Your task to perform on an android device: Open the calendar and show me this week's events? Image 0: 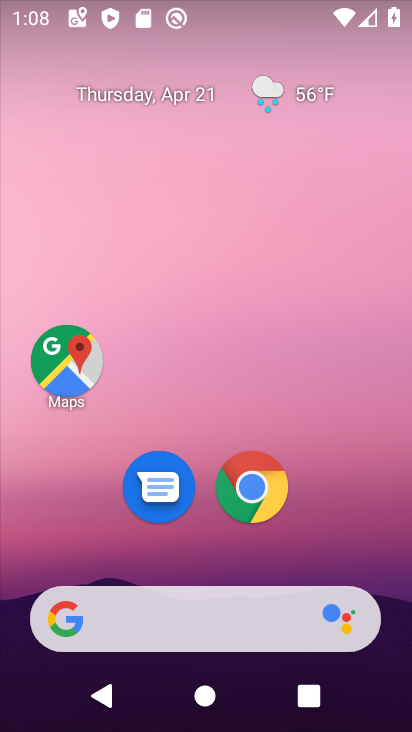
Step 0: drag from (366, 509) to (245, 10)
Your task to perform on an android device: Open the calendar and show me this week's events? Image 1: 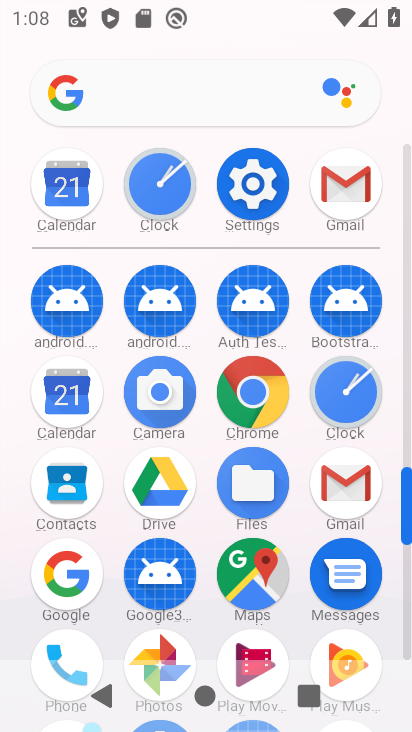
Step 1: click (66, 397)
Your task to perform on an android device: Open the calendar and show me this week's events? Image 2: 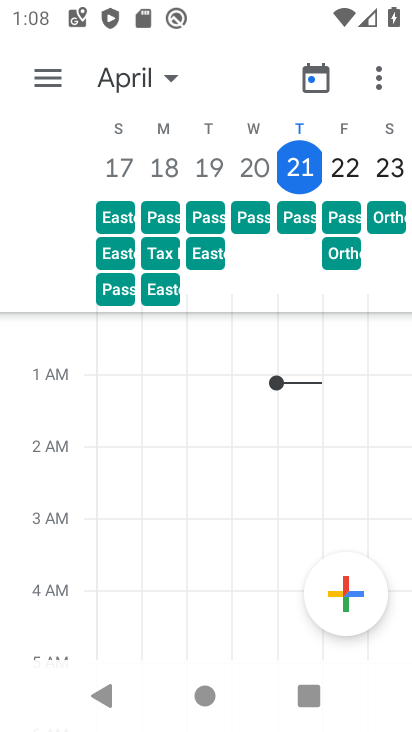
Step 2: click (170, 79)
Your task to perform on an android device: Open the calendar and show me this week's events? Image 3: 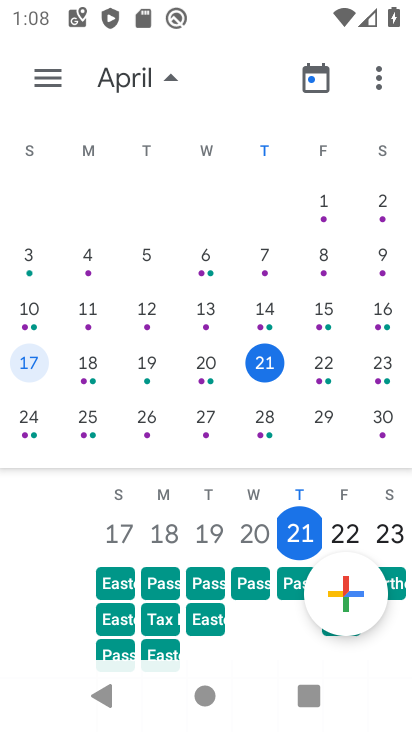
Step 3: click (35, 81)
Your task to perform on an android device: Open the calendar and show me this week's events? Image 4: 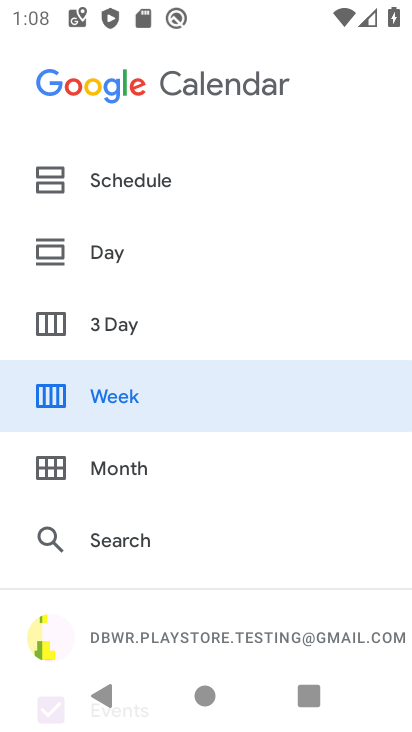
Step 4: click (110, 182)
Your task to perform on an android device: Open the calendar and show me this week's events? Image 5: 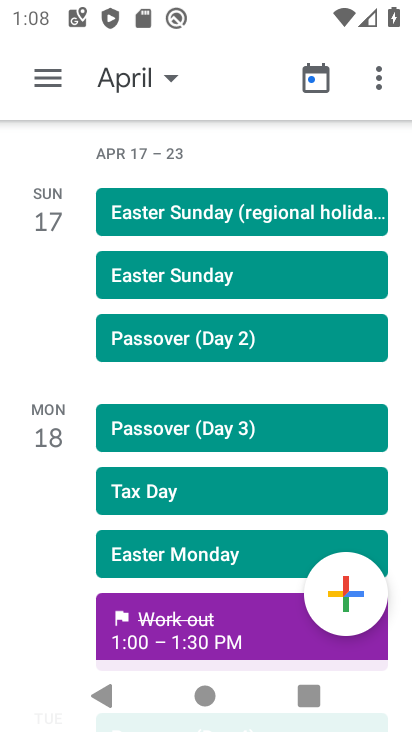
Step 5: drag from (225, 258) to (185, 539)
Your task to perform on an android device: Open the calendar and show me this week's events? Image 6: 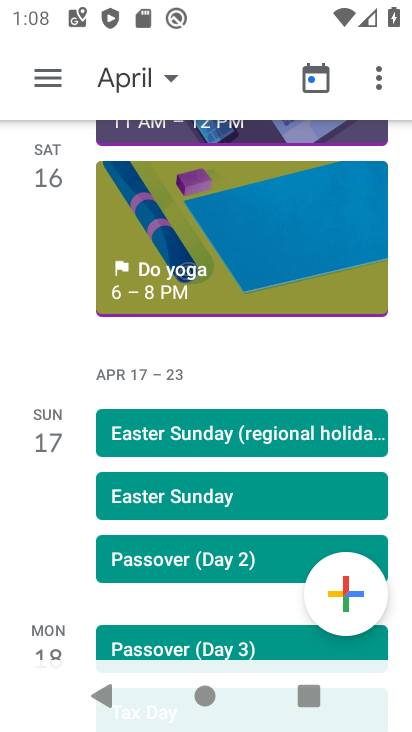
Step 6: click (159, 83)
Your task to perform on an android device: Open the calendar and show me this week's events? Image 7: 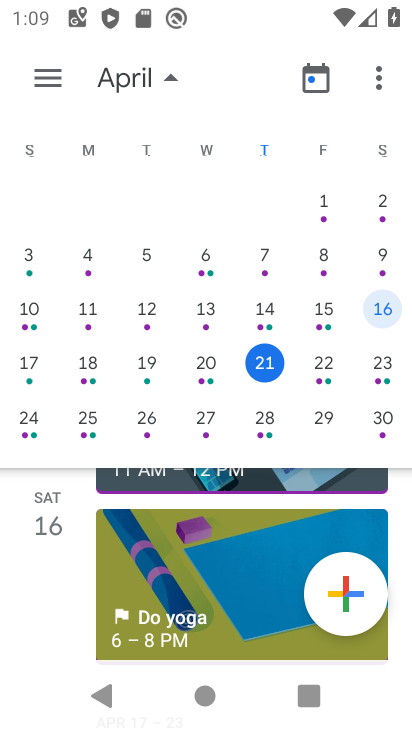
Step 7: click (320, 370)
Your task to perform on an android device: Open the calendar and show me this week's events? Image 8: 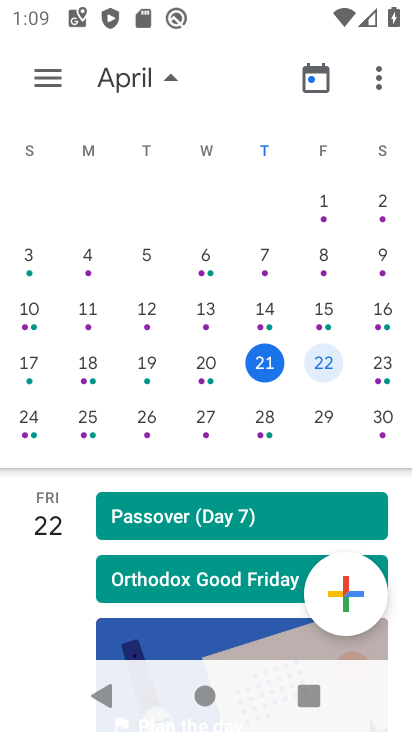
Step 8: drag from (228, 519) to (190, 244)
Your task to perform on an android device: Open the calendar and show me this week's events? Image 9: 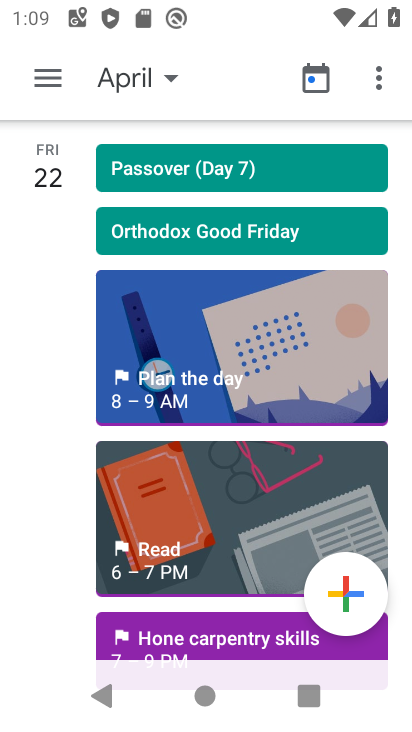
Step 9: click (52, 79)
Your task to perform on an android device: Open the calendar and show me this week's events? Image 10: 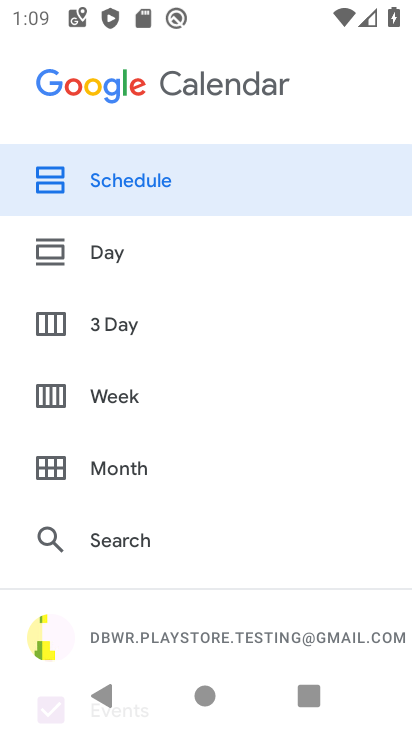
Step 10: click (114, 400)
Your task to perform on an android device: Open the calendar and show me this week's events? Image 11: 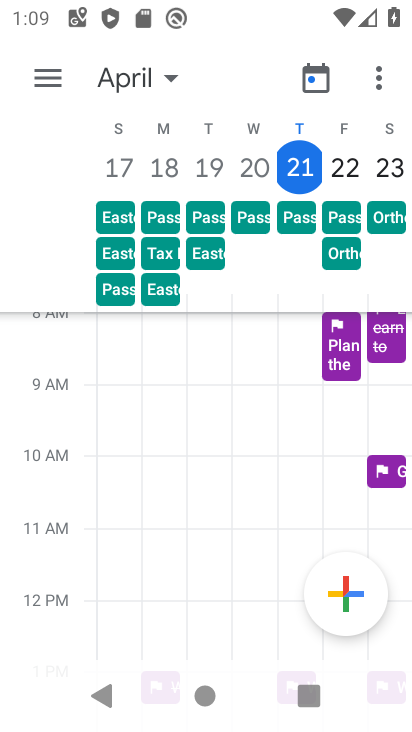
Step 11: task complete